Your task to perform on an android device: Clear all items from cart on costco. Image 0: 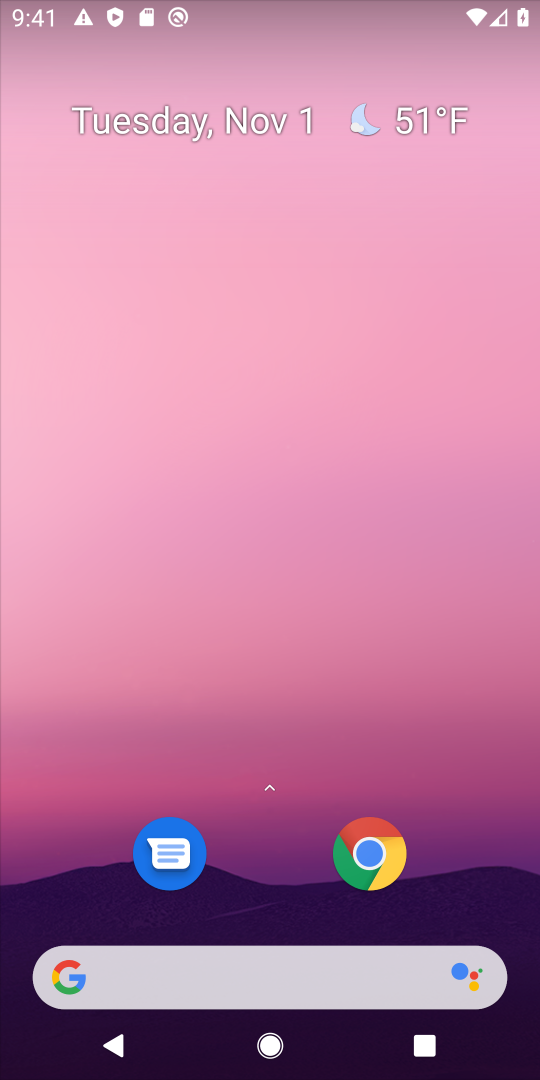
Step 0: click (284, 992)
Your task to perform on an android device: Clear all items from cart on costco. Image 1: 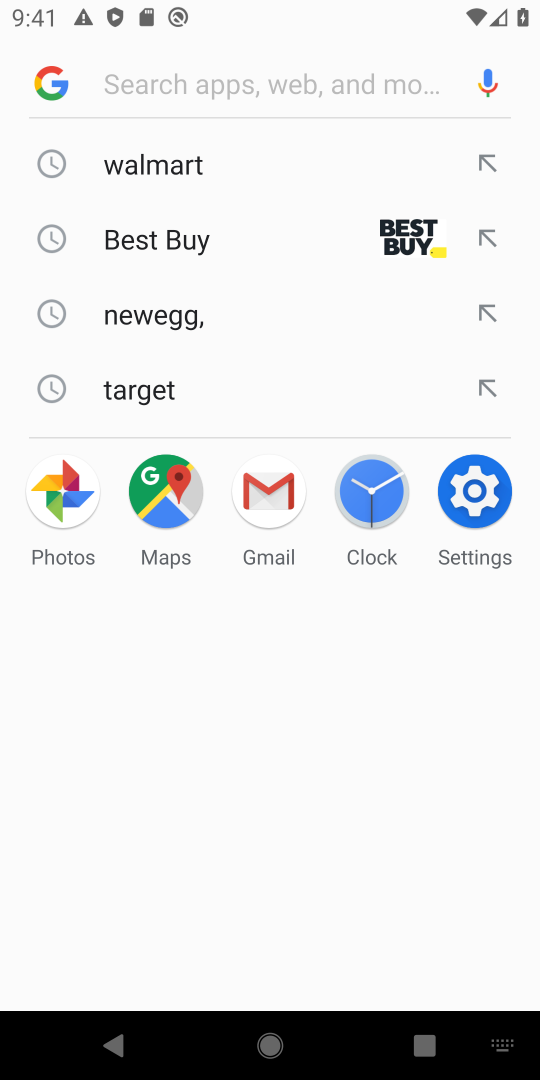
Step 1: type "costco"
Your task to perform on an android device: Clear all items from cart on costco. Image 2: 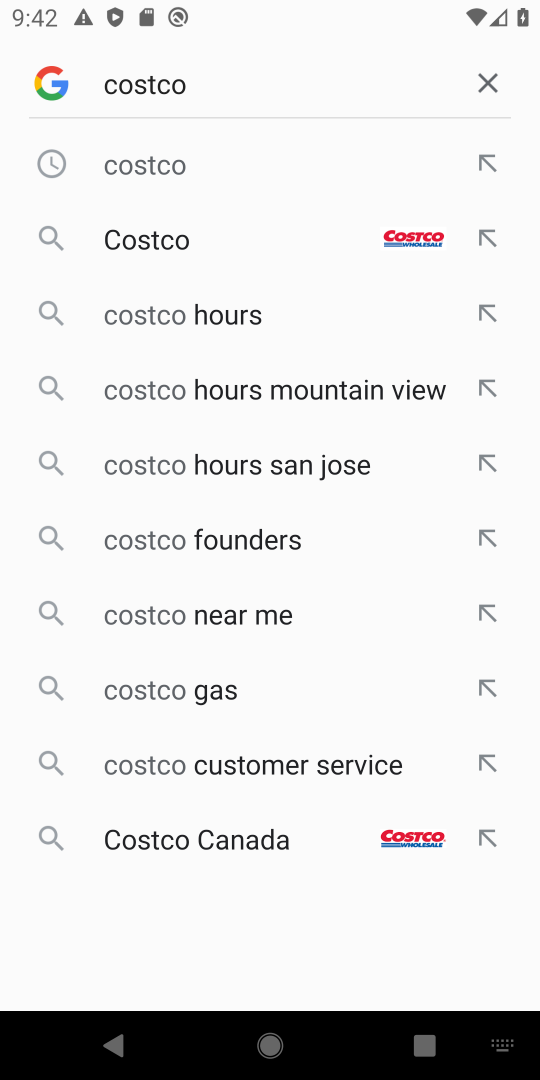
Step 2: click (195, 237)
Your task to perform on an android device: Clear all items from cart on costco. Image 3: 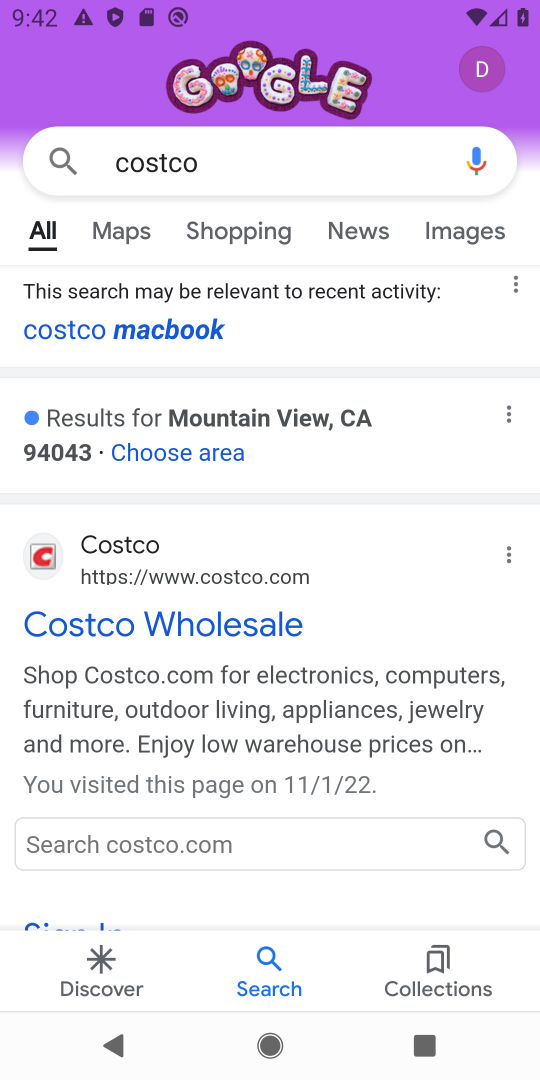
Step 3: click (145, 612)
Your task to perform on an android device: Clear all items from cart on costco. Image 4: 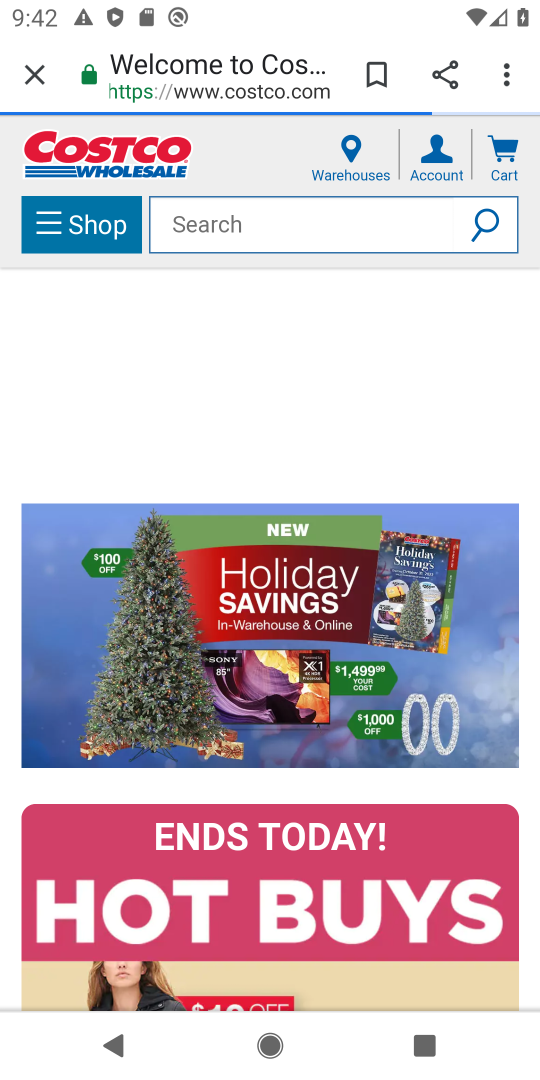
Step 4: click (496, 173)
Your task to perform on an android device: Clear all items from cart on costco. Image 5: 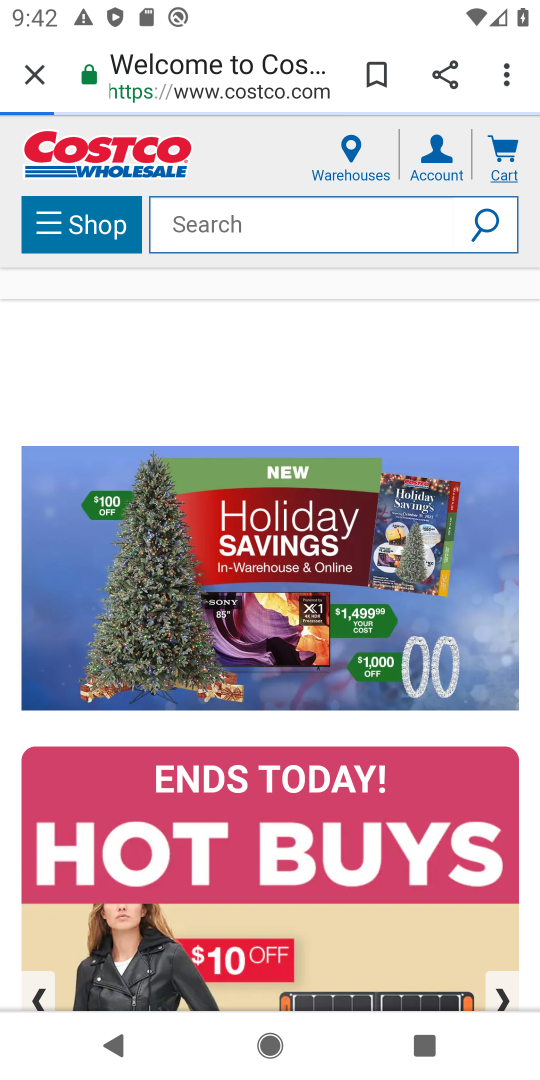
Step 5: task complete